Your task to perform on an android device: Do I have any events tomorrow? Image 0: 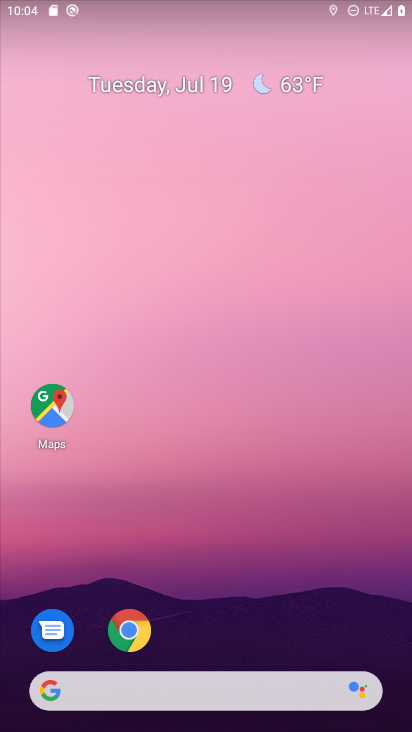
Step 0: drag from (160, 698) to (250, 136)
Your task to perform on an android device: Do I have any events tomorrow? Image 1: 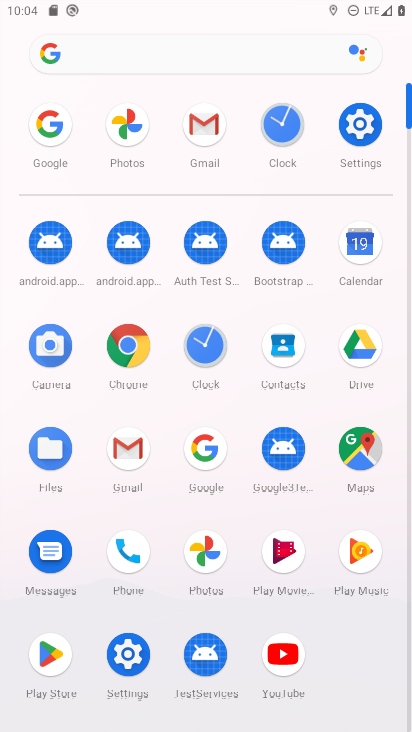
Step 1: click (358, 246)
Your task to perform on an android device: Do I have any events tomorrow? Image 2: 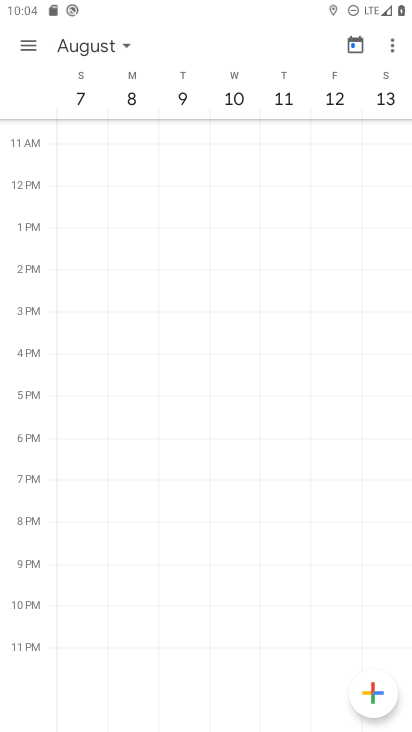
Step 2: click (353, 48)
Your task to perform on an android device: Do I have any events tomorrow? Image 3: 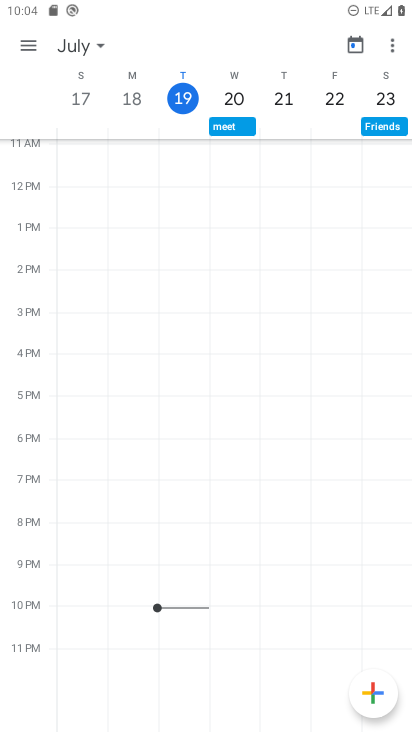
Step 3: click (99, 48)
Your task to perform on an android device: Do I have any events tomorrow? Image 4: 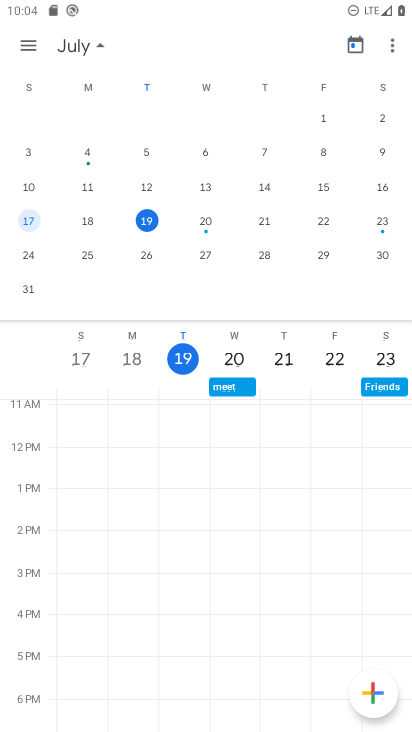
Step 4: click (205, 220)
Your task to perform on an android device: Do I have any events tomorrow? Image 5: 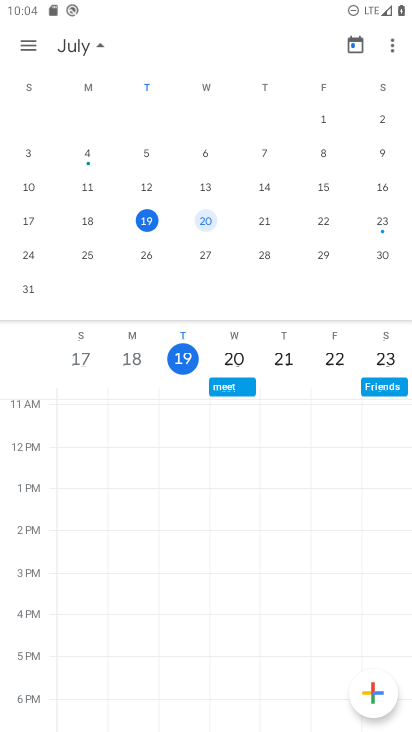
Step 5: click (28, 49)
Your task to perform on an android device: Do I have any events tomorrow? Image 6: 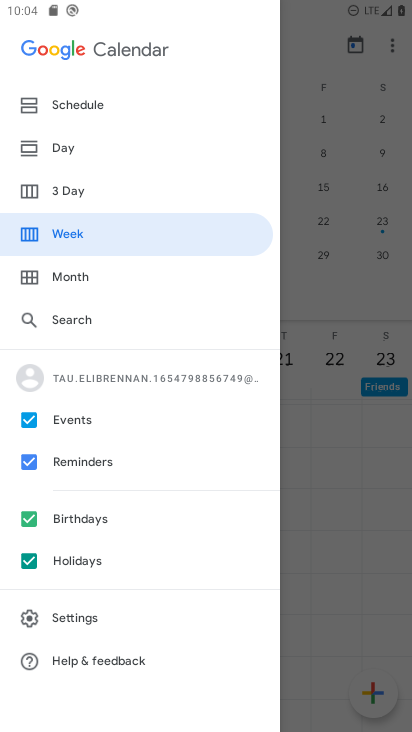
Step 6: click (58, 104)
Your task to perform on an android device: Do I have any events tomorrow? Image 7: 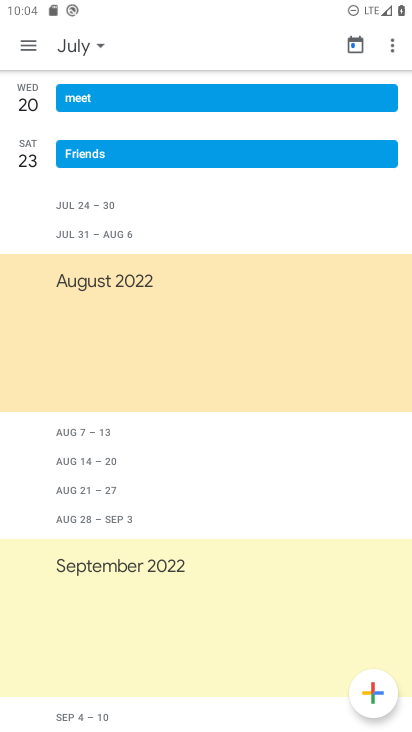
Step 7: task complete